Your task to perform on an android device: Go to privacy settings Image 0: 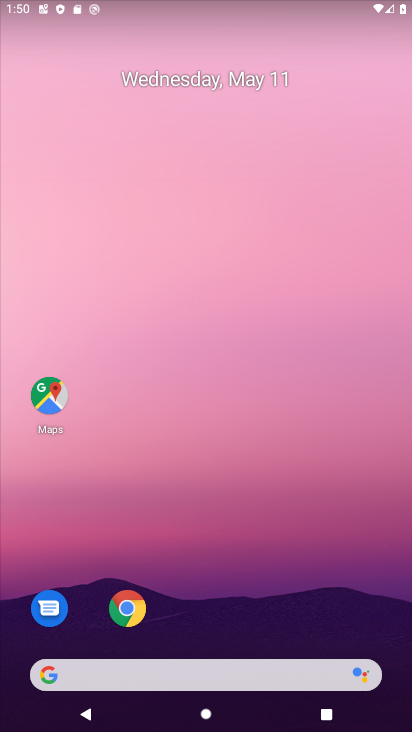
Step 0: drag from (202, 632) to (197, 10)
Your task to perform on an android device: Go to privacy settings Image 1: 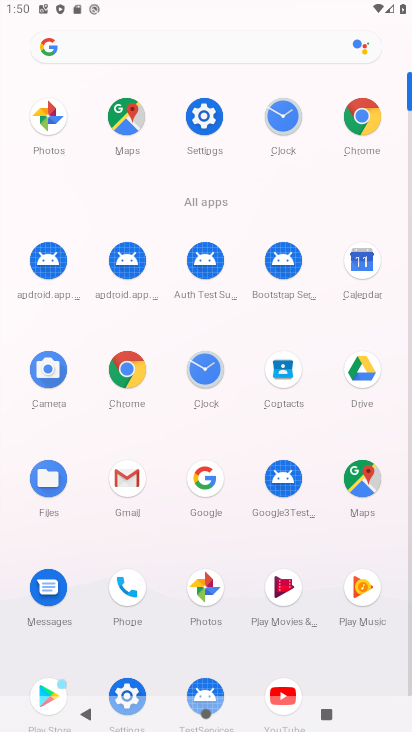
Step 1: click (199, 113)
Your task to perform on an android device: Go to privacy settings Image 2: 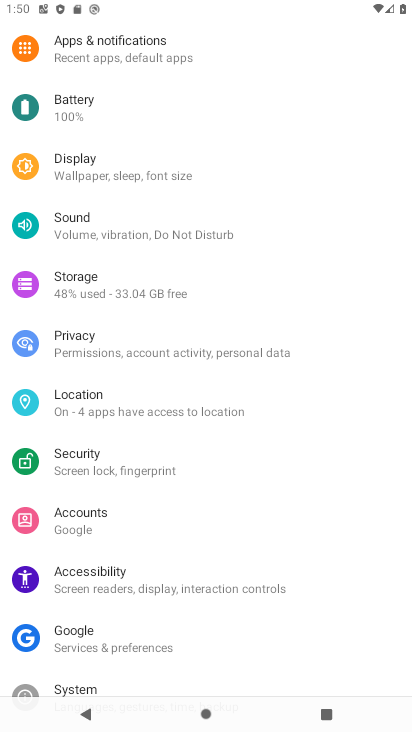
Step 2: click (98, 342)
Your task to perform on an android device: Go to privacy settings Image 3: 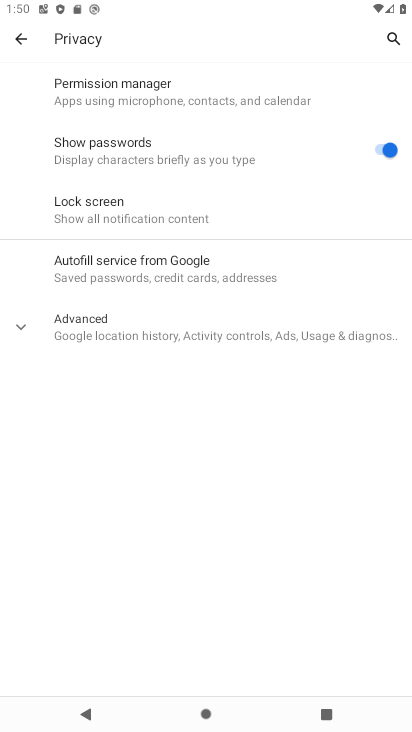
Step 3: click (41, 325)
Your task to perform on an android device: Go to privacy settings Image 4: 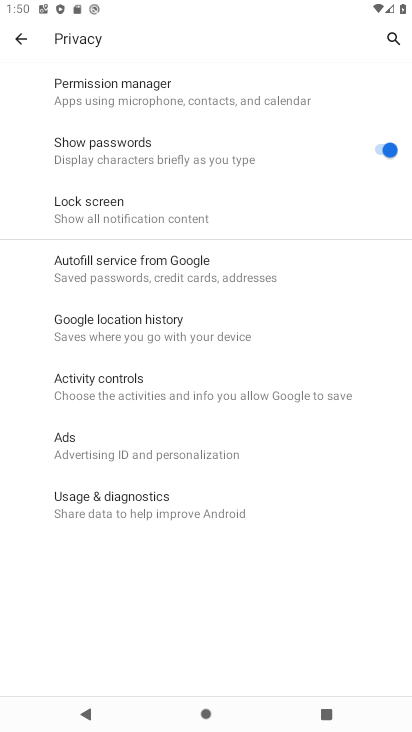
Step 4: task complete